Your task to perform on an android device: Do I have any events tomorrow? Image 0: 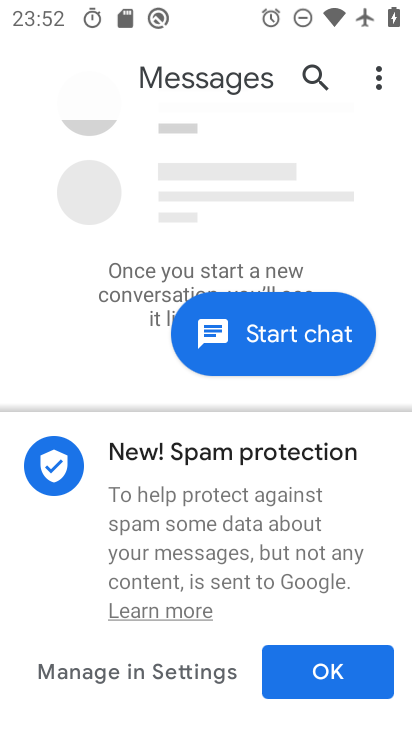
Step 0: press home button
Your task to perform on an android device: Do I have any events tomorrow? Image 1: 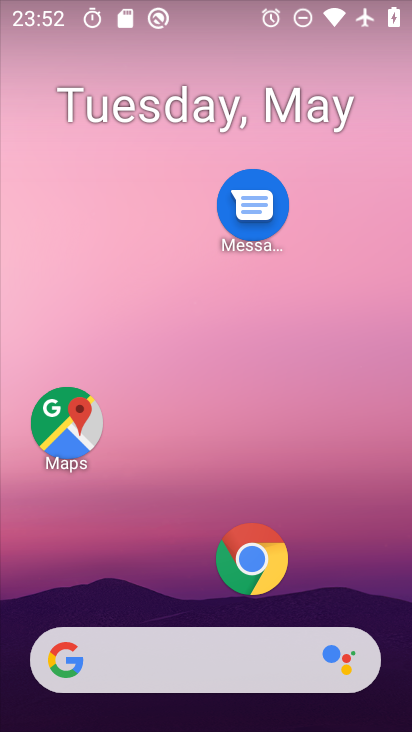
Step 1: drag from (179, 565) to (197, 186)
Your task to perform on an android device: Do I have any events tomorrow? Image 2: 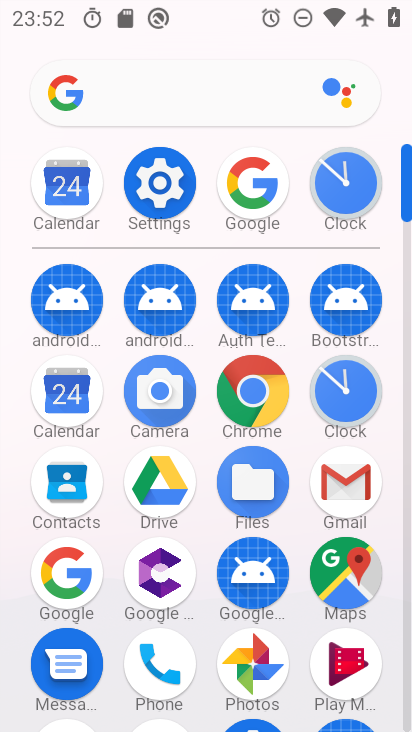
Step 2: click (50, 394)
Your task to perform on an android device: Do I have any events tomorrow? Image 3: 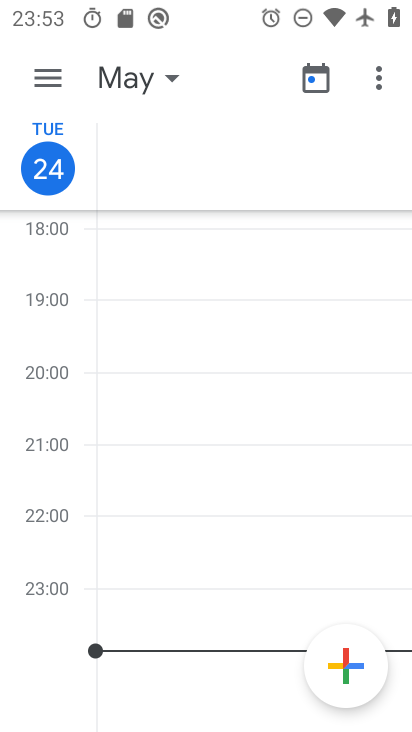
Step 3: click (174, 85)
Your task to perform on an android device: Do I have any events tomorrow? Image 4: 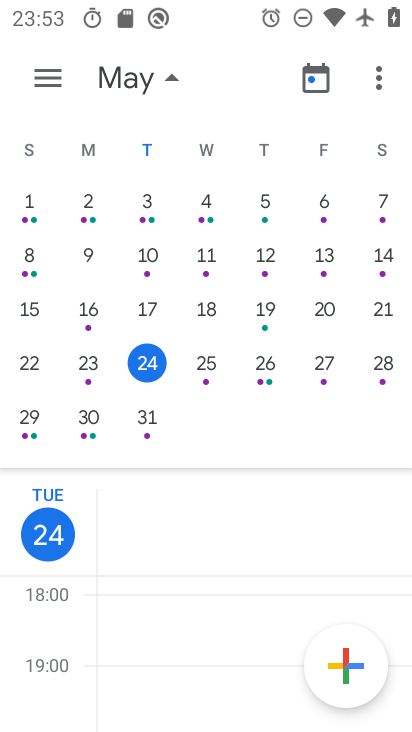
Step 4: click (201, 370)
Your task to perform on an android device: Do I have any events tomorrow? Image 5: 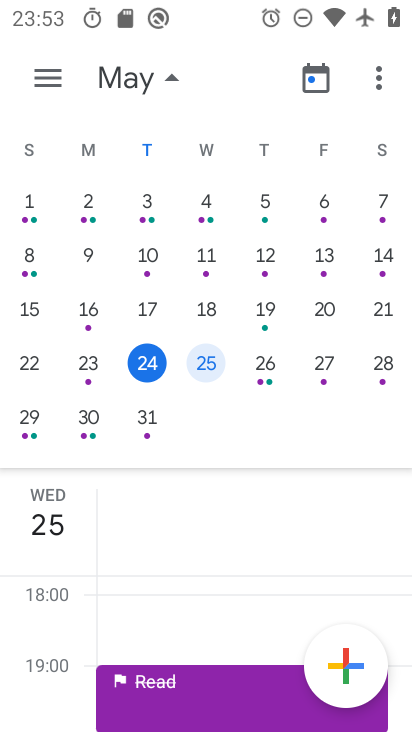
Step 5: task complete